Your task to perform on an android device: Search for sushi restaurants on Maps Image 0: 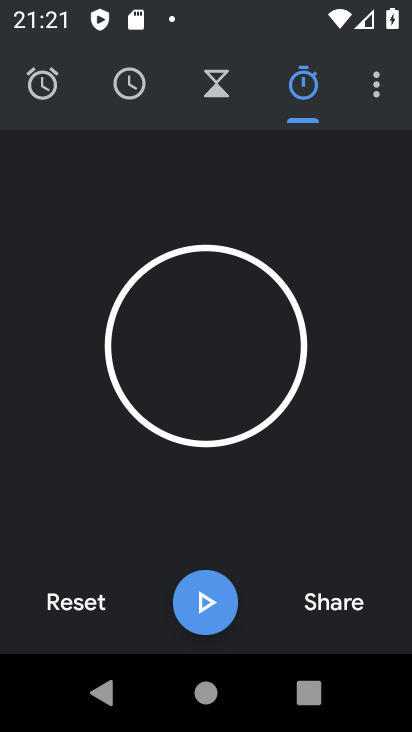
Step 0: press home button
Your task to perform on an android device: Search for sushi restaurants on Maps Image 1: 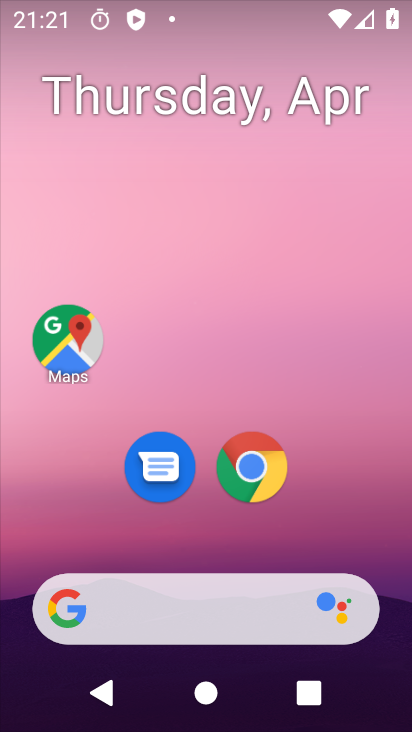
Step 1: click (65, 334)
Your task to perform on an android device: Search for sushi restaurants on Maps Image 2: 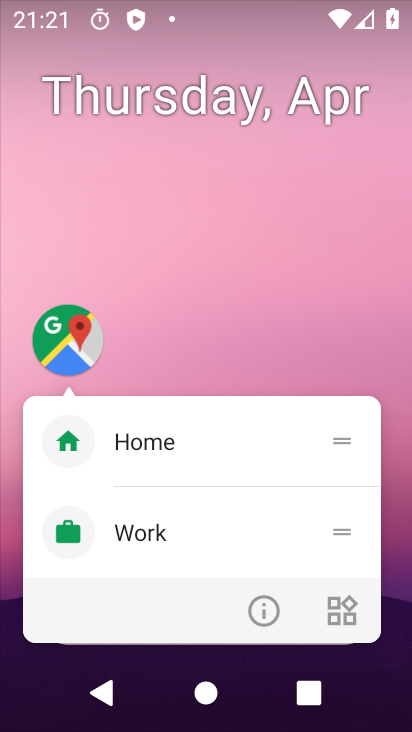
Step 2: click (84, 340)
Your task to perform on an android device: Search for sushi restaurants on Maps Image 3: 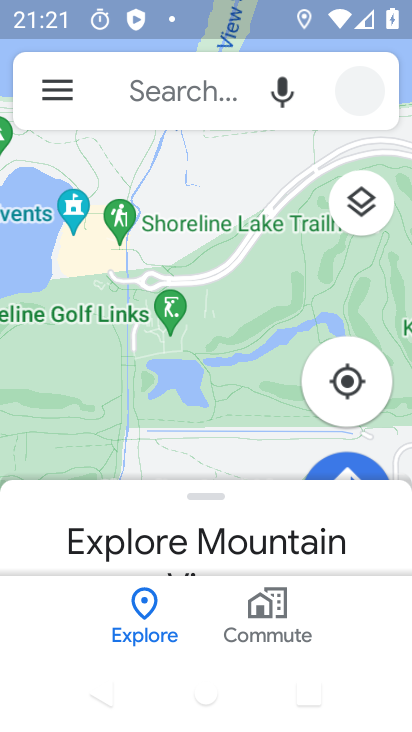
Step 3: click (191, 70)
Your task to perform on an android device: Search for sushi restaurants on Maps Image 4: 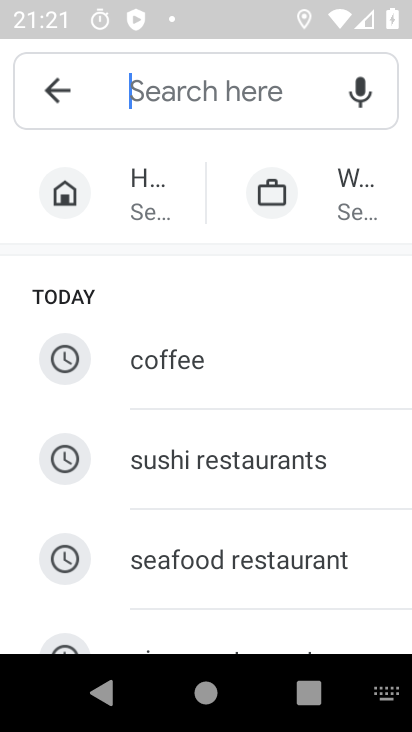
Step 4: click (209, 449)
Your task to perform on an android device: Search for sushi restaurants on Maps Image 5: 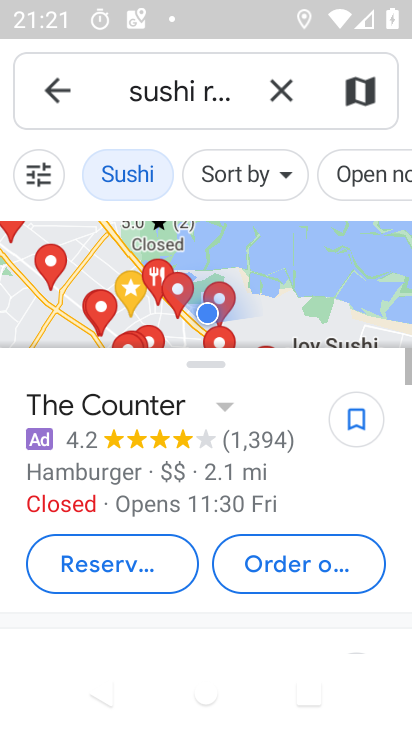
Step 5: task complete